Your task to perform on an android device: Open eBay Image 0: 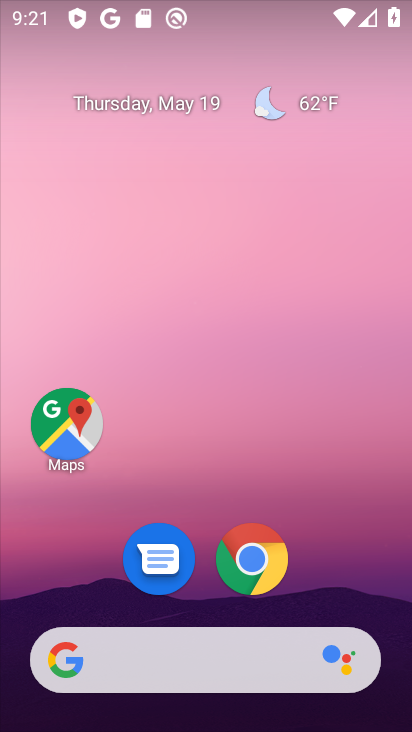
Step 0: click (265, 549)
Your task to perform on an android device: Open eBay Image 1: 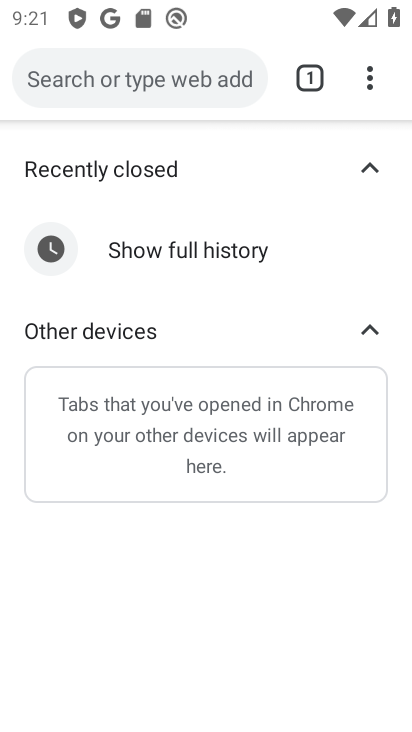
Step 1: click (207, 71)
Your task to perform on an android device: Open eBay Image 2: 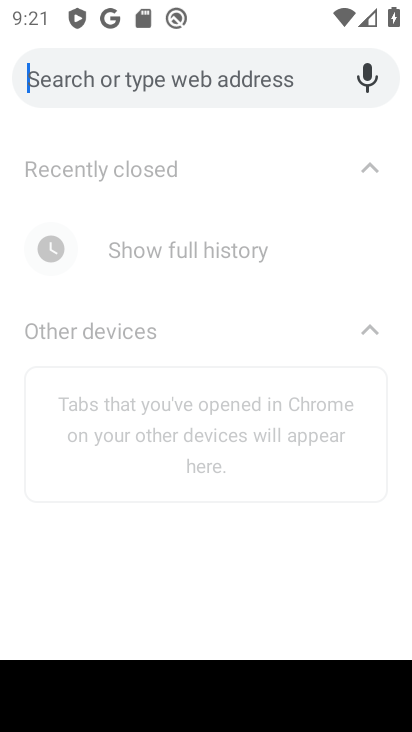
Step 2: type "ebay"
Your task to perform on an android device: Open eBay Image 3: 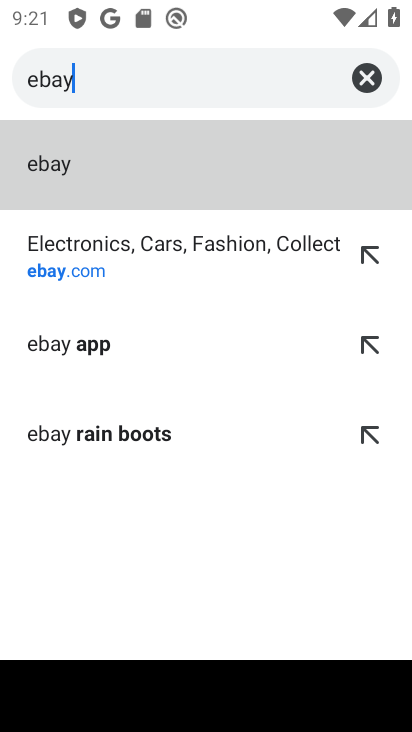
Step 3: click (49, 271)
Your task to perform on an android device: Open eBay Image 4: 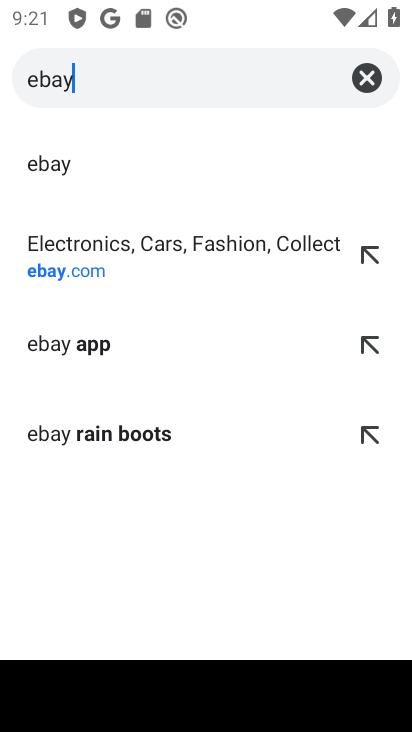
Step 4: click (51, 271)
Your task to perform on an android device: Open eBay Image 5: 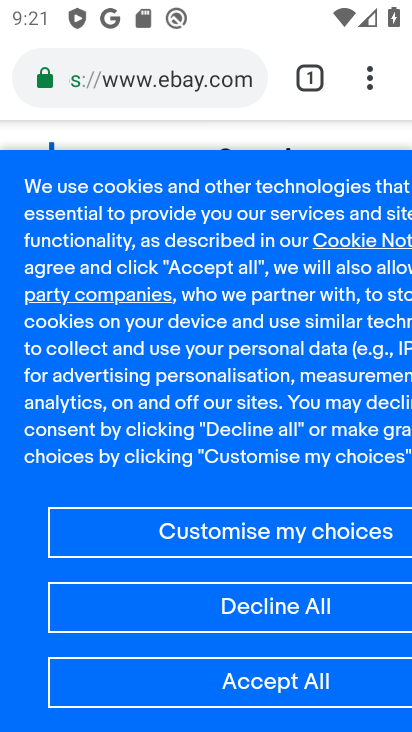
Step 5: task complete